Your task to perform on an android device: turn off notifications settings in the gmail app Image 0: 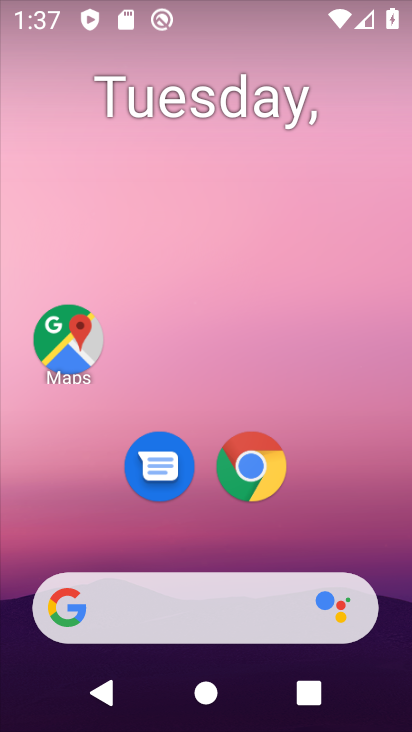
Step 0: drag from (357, 520) to (316, 201)
Your task to perform on an android device: turn off notifications settings in the gmail app Image 1: 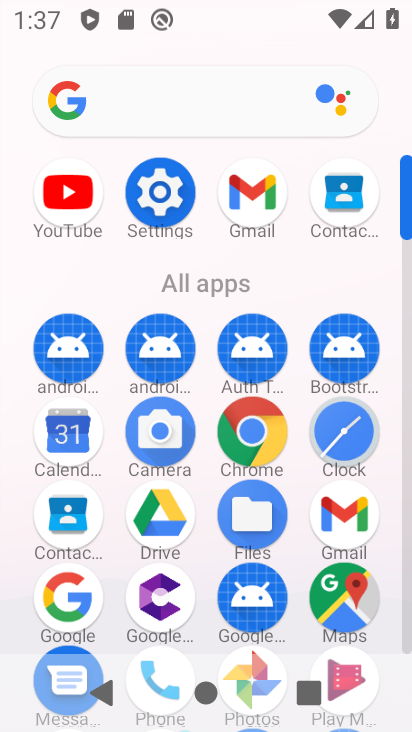
Step 1: click (262, 213)
Your task to perform on an android device: turn off notifications settings in the gmail app Image 2: 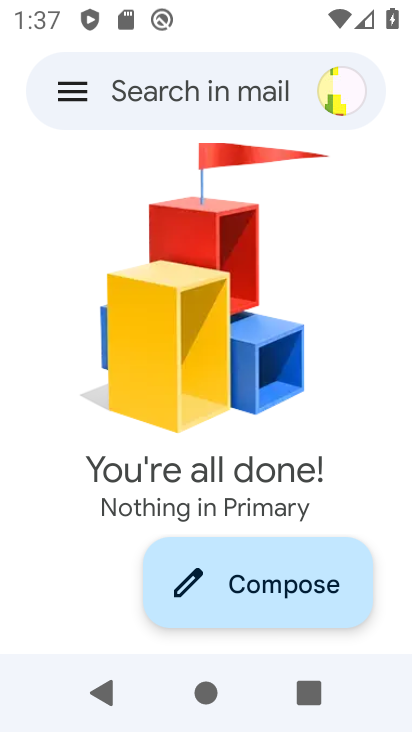
Step 2: task complete